Your task to perform on an android device: manage bookmarks in the chrome app Image 0: 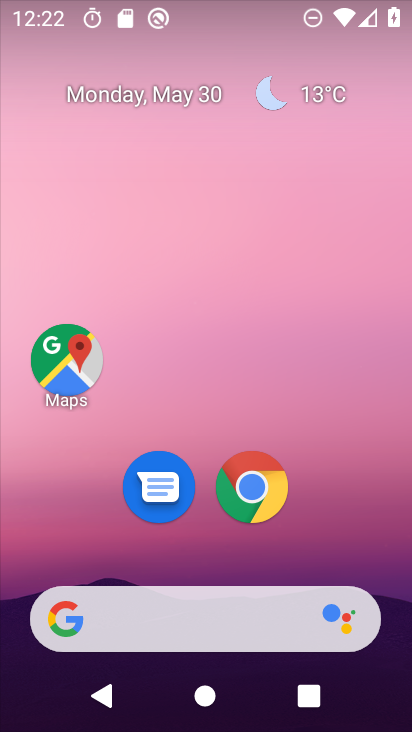
Step 0: click (265, 488)
Your task to perform on an android device: manage bookmarks in the chrome app Image 1: 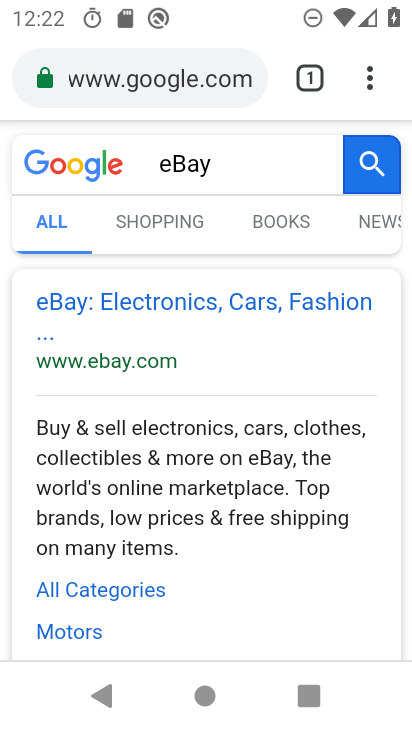
Step 1: click (372, 86)
Your task to perform on an android device: manage bookmarks in the chrome app Image 2: 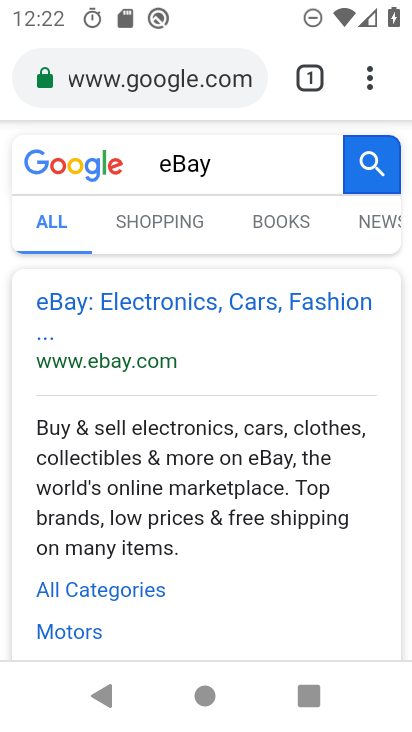
Step 2: click (370, 79)
Your task to perform on an android device: manage bookmarks in the chrome app Image 3: 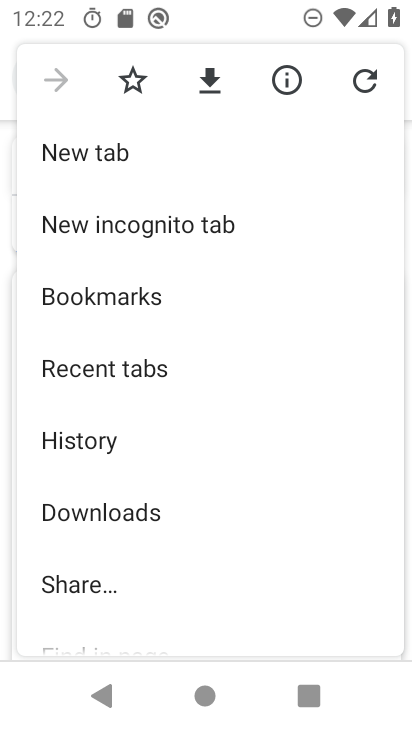
Step 3: click (126, 296)
Your task to perform on an android device: manage bookmarks in the chrome app Image 4: 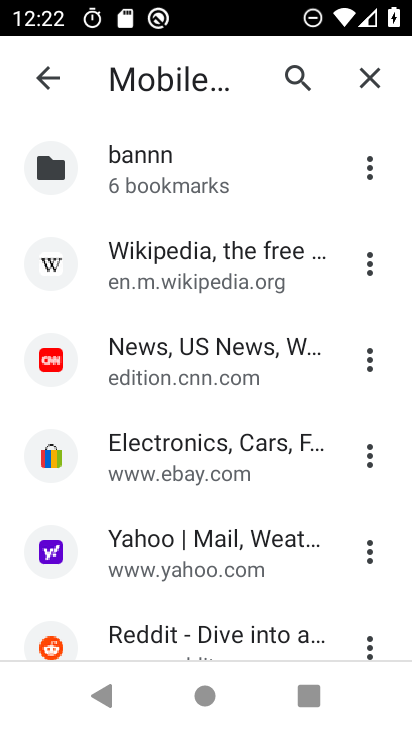
Step 4: click (375, 448)
Your task to perform on an android device: manage bookmarks in the chrome app Image 5: 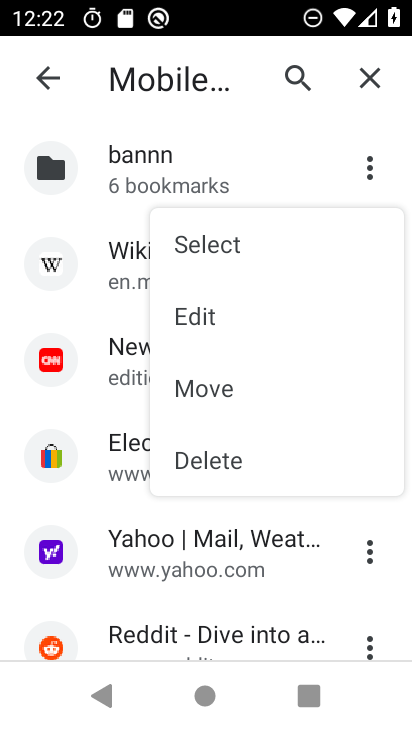
Step 5: click (242, 465)
Your task to perform on an android device: manage bookmarks in the chrome app Image 6: 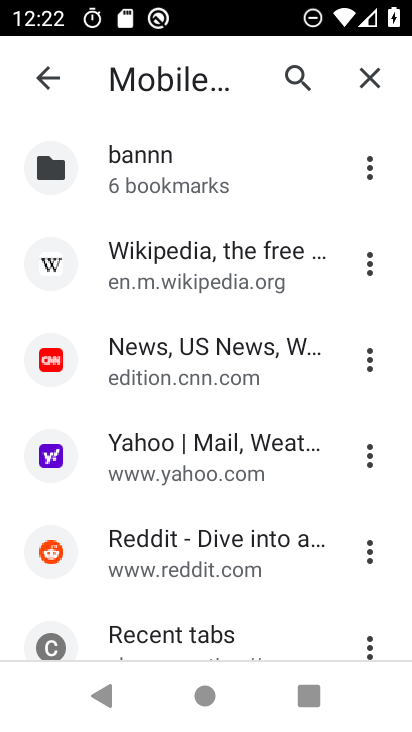
Step 6: task complete